Your task to perform on an android device: What is the news today? Image 0: 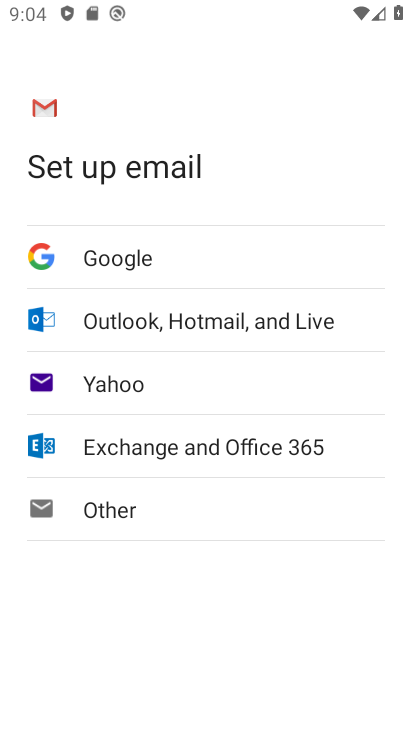
Step 0: press home button
Your task to perform on an android device: What is the news today? Image 1: 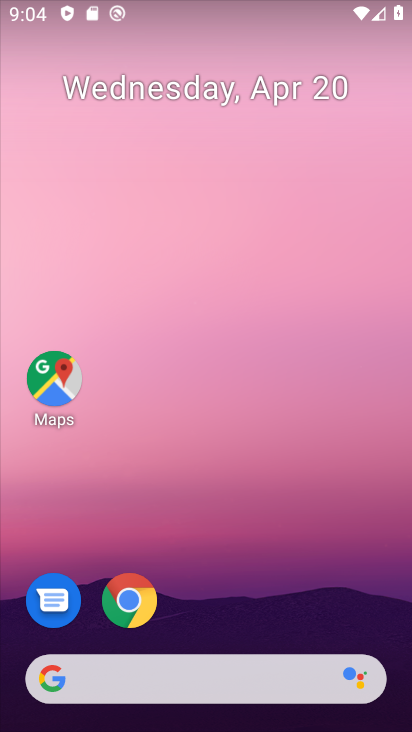
Step 1: click (185, 691)
Your task to perform on an android device: What is the news today? Image 2: 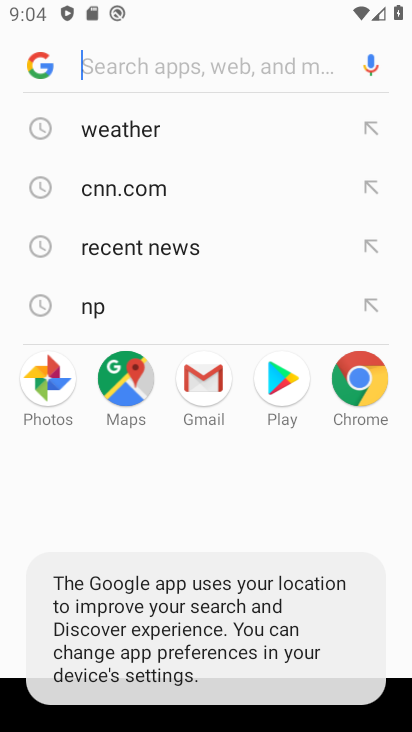
Step 2: click (46, 55)
Your task to perform on an android device: What is the news today? Image 3: 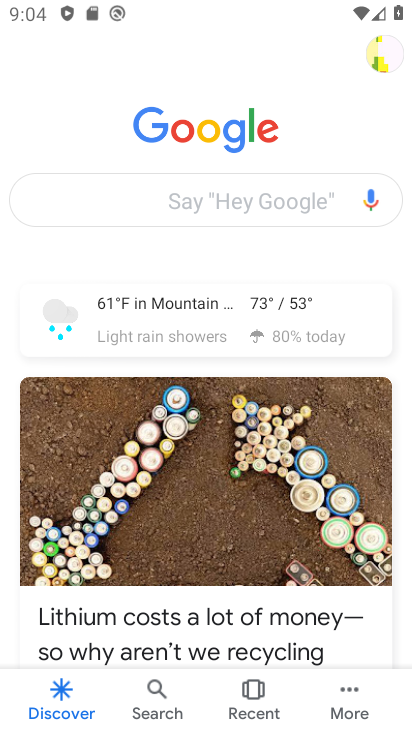
Step 3: task complete